Your task to perform on an android device: Is it going to rain this weekend? Image 0: 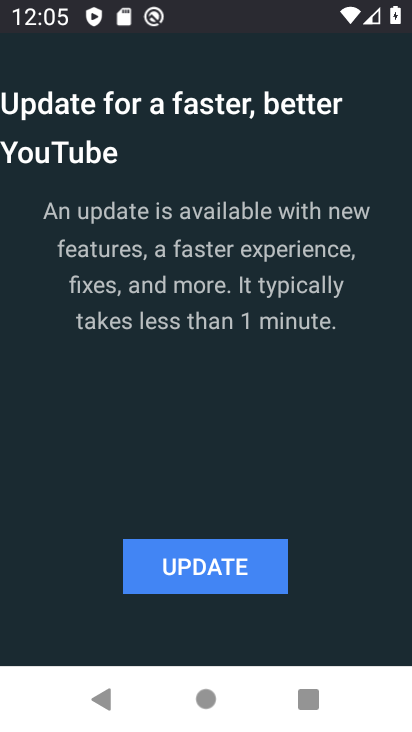
Step 0: press home button
Your task to perform on an android device: Is it going to rain this weekend? Image 1: 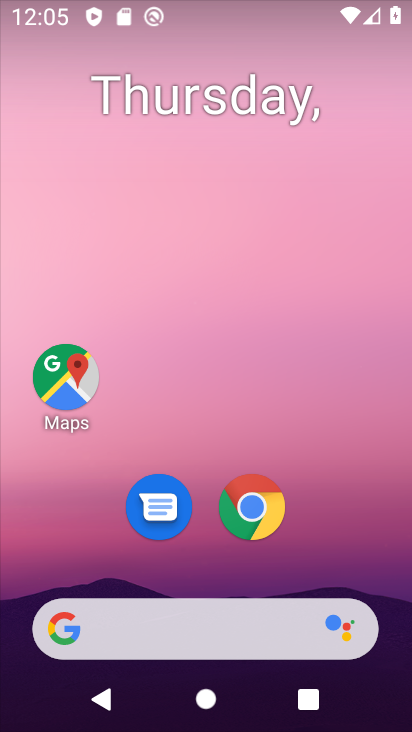
Step 1: drag from (271, 541) to (367, 87)
Your task to perform on an android device: Is it going to rain this weekend? Image 2: 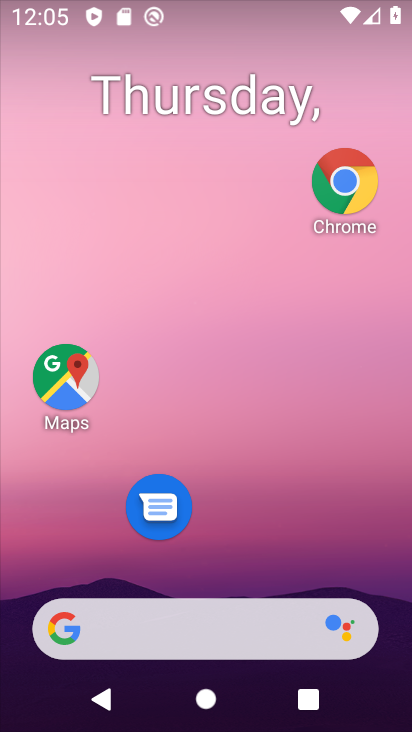
Step 2: drag from (215, 673) to (151, 3)
Your task to perform on an android device: Is it going to rain this weekend? Image 3: 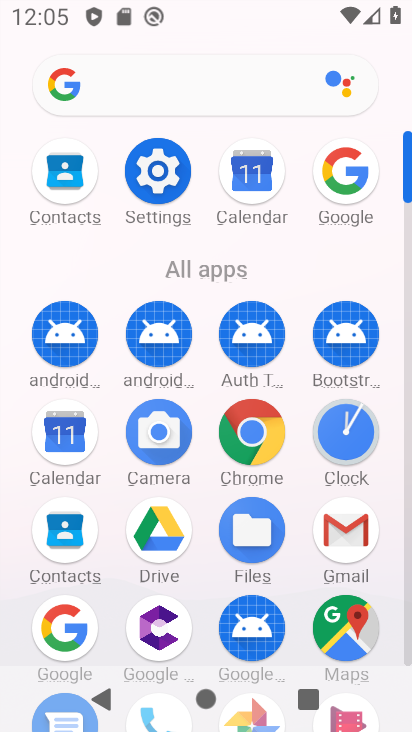
Step 3: click (70, 642)
Your task to perform on an android device: Is it going to rain this weekend? Image 4: 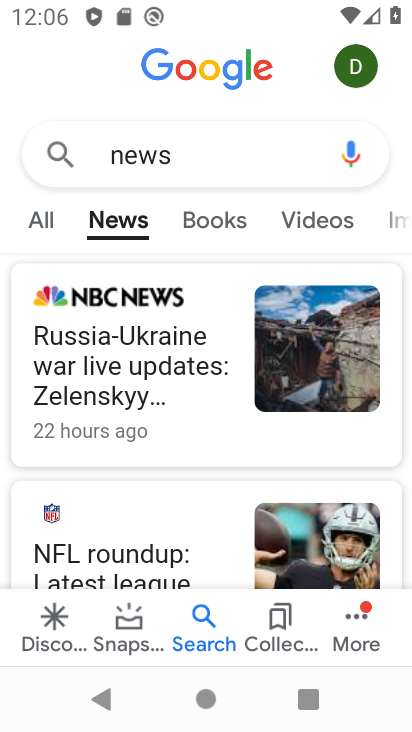
Step 4: click (272, 174)
Your task to perform on an android device: Is it going to rain this weekend? Image 5: 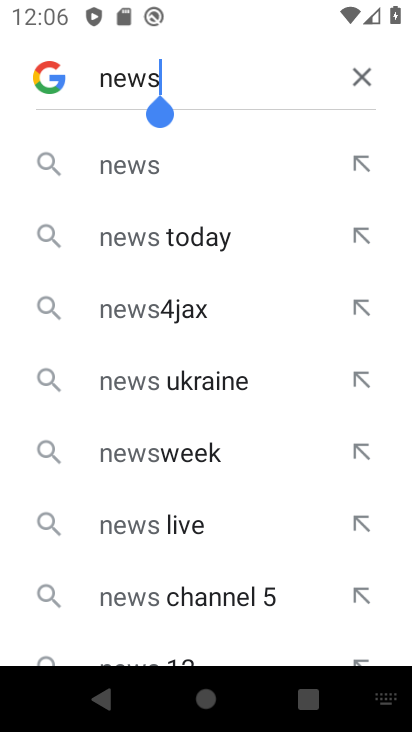
Step 5: click (366, 77)
Your task to perform on an android device: Is it going to rain this weekend? Image 6: 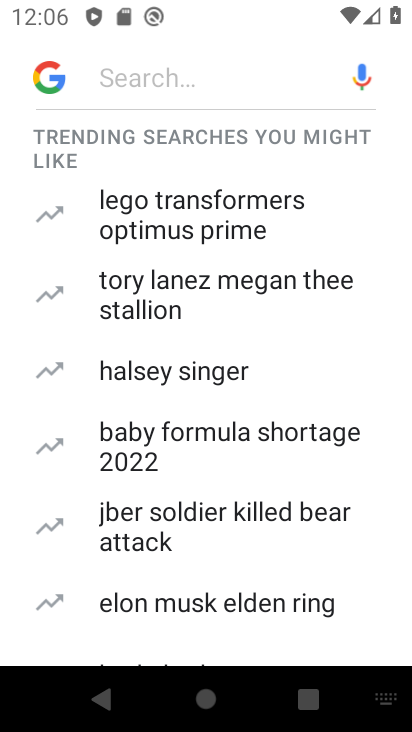
Step 6: type "weather"
Your task to perform on an android device: Is it going to rain this weekend? Image 7: 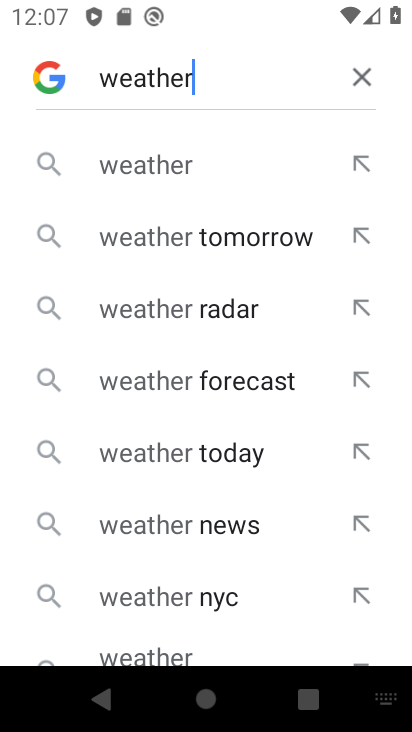
Step 7: click (201, 171)
Your task to perform on an android device: Is it going to rain this weekend? Image 8: 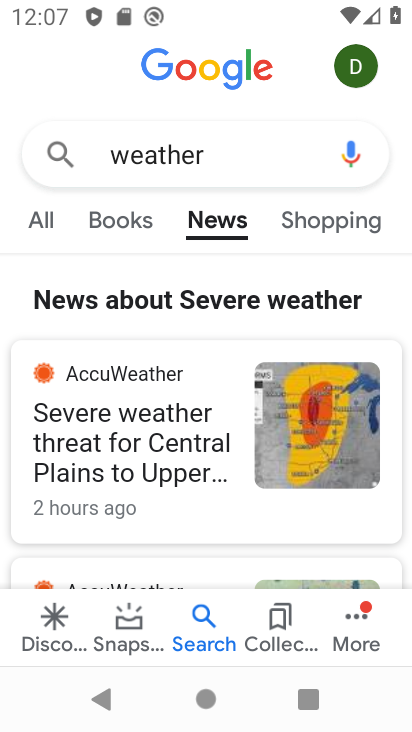
Step 8: click (37, 219)
Your task to perform on an android device: Is it going to rain this weekend? Image 9: 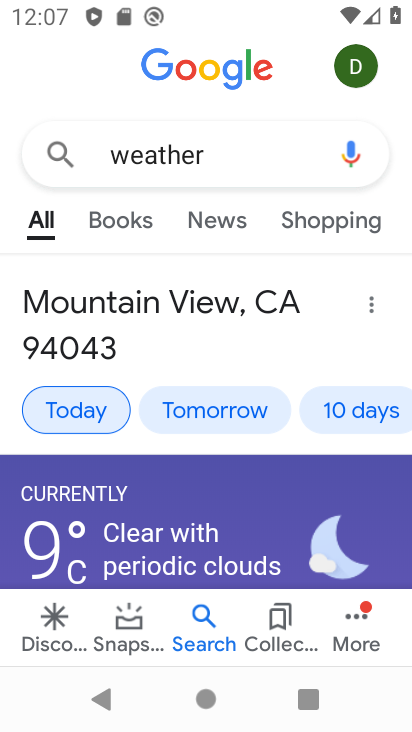
Step 9: click (339, 415)
Your task to perform on an android device: Is it going to rain this weekend? Image 10: 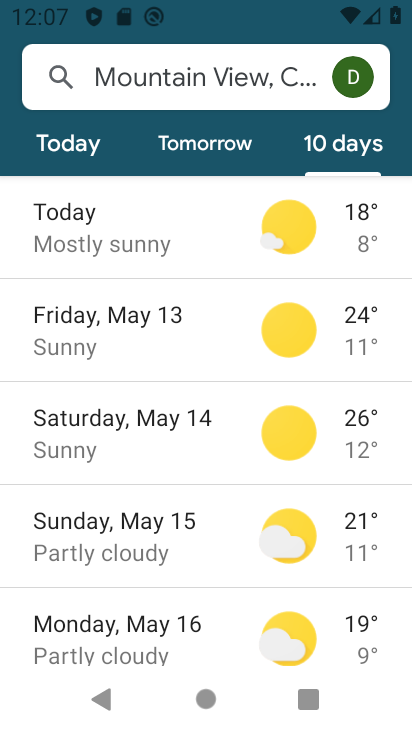
Step 10: task complete